Your task to perform on an android device: Go to notification settings Image 0: 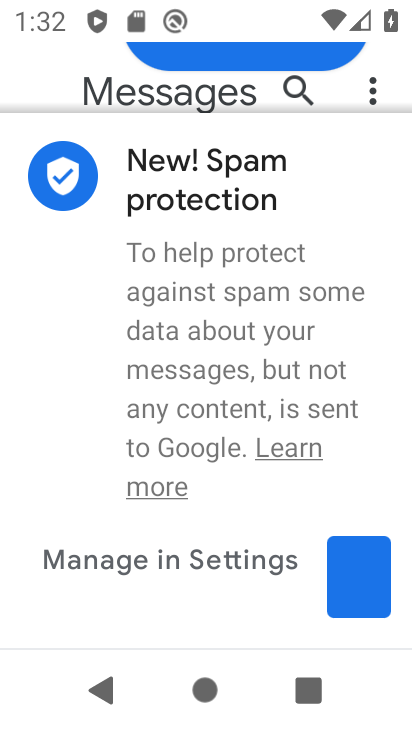
Step 0: press home button
Your task to perform on an android device: Go to notification settings Image 1: 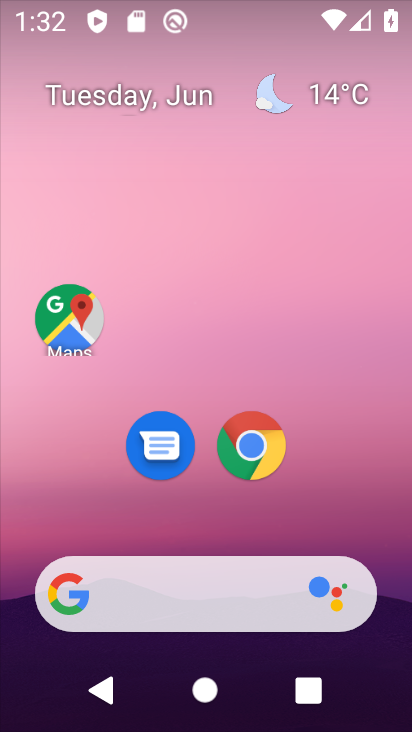
Step 1: drag from (361, 518) to (317, 114)
Your task to perform on an android device: Go to notification settings Image 2: 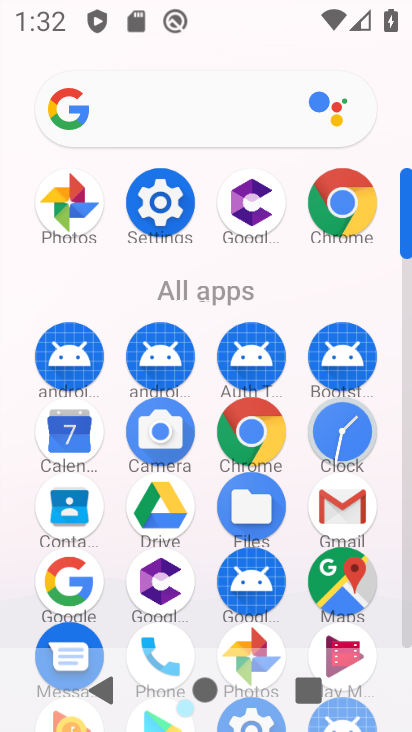
Step 2: click (165, 212)
Your task to perform on an android device: Go to notification settings Image 3: 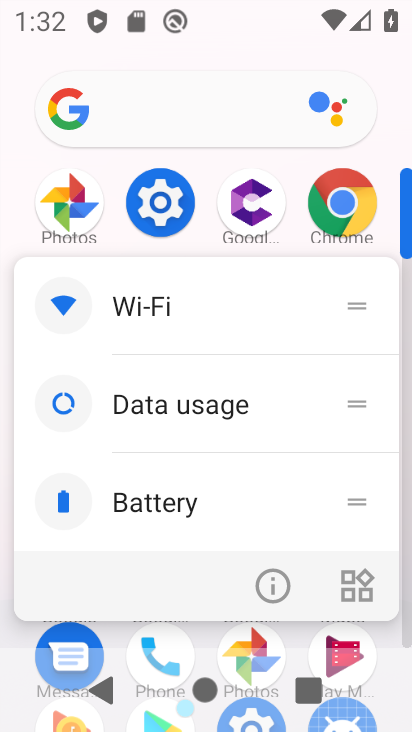
Step 3: click (166, 215)
Your task to perform on an android device: Go to notification settings Image 4: 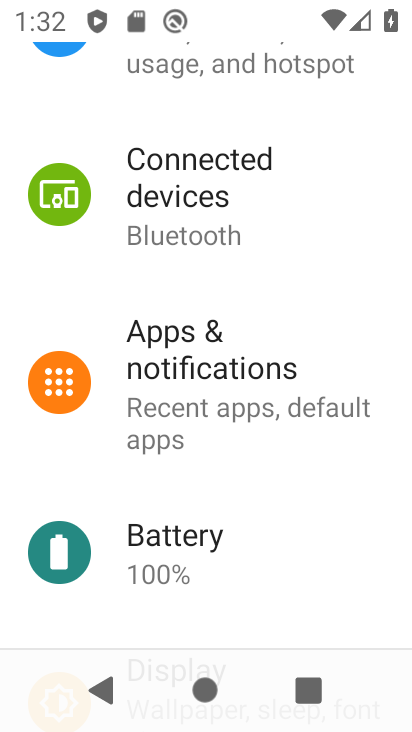
Step 4: drag from (306, 588) to (306, 295)
Your task to perform on an android device: Go to notification settings Image 5: 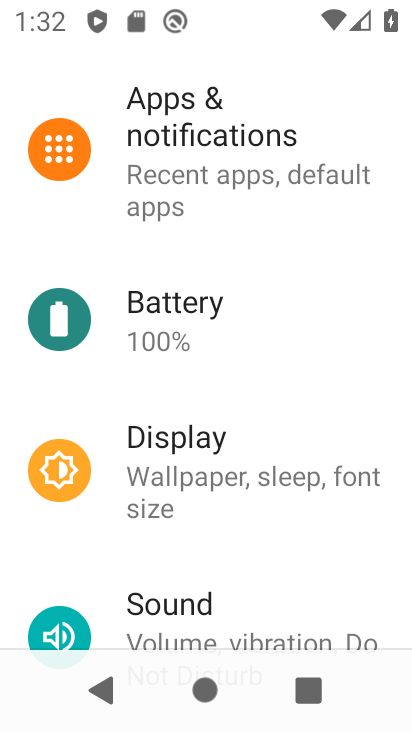
Step 5: click (214, 145)
Your task to perform on an android device: Go to notification settings Image 6: 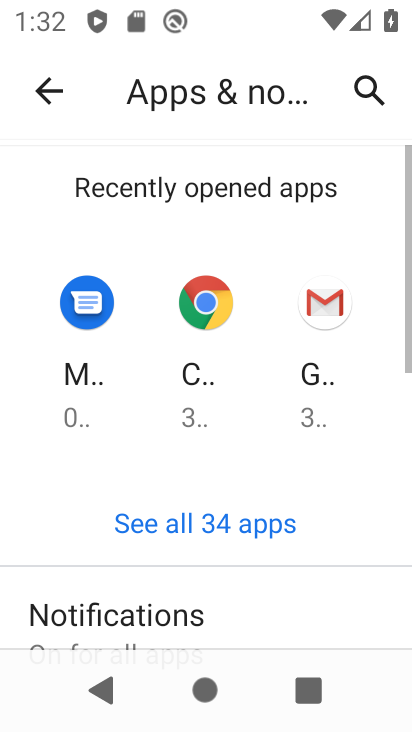
Step 6: drag from (284, 626) to (267, 293)
Your task to perform on an android device: Go to notification settings Image 7: 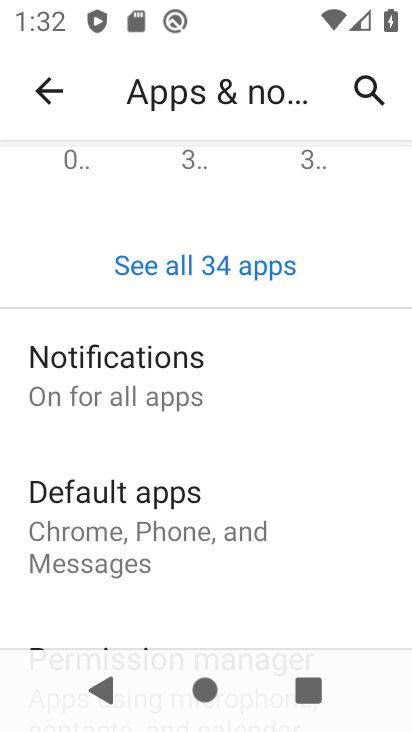
Step 7: click (216, 391)
Your task to perform on an android device: Go to notification settings Image 8: 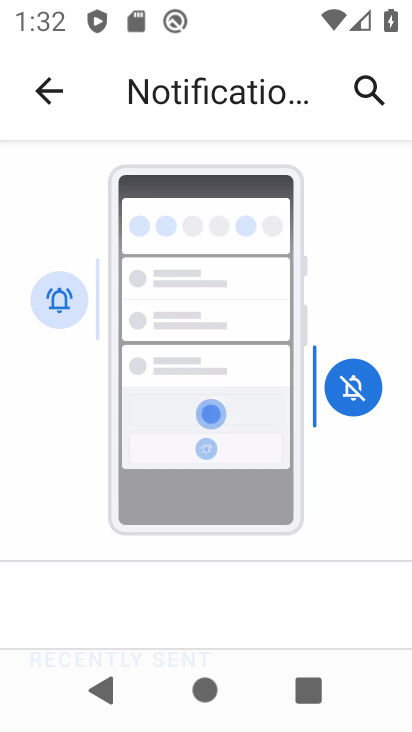
Step 8: task complete